Your task to perform on an android device: see sites visited before in the chrome app Image 0: 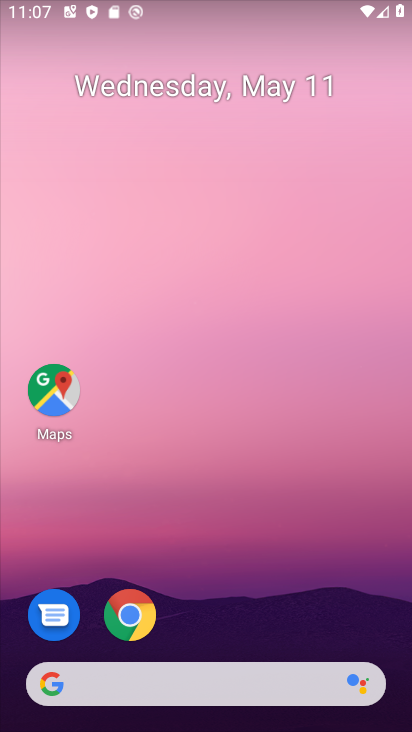
Step 0: click (127, 617)
Your task to perform on an android device: see sites visited before in the chrome app Image 1: 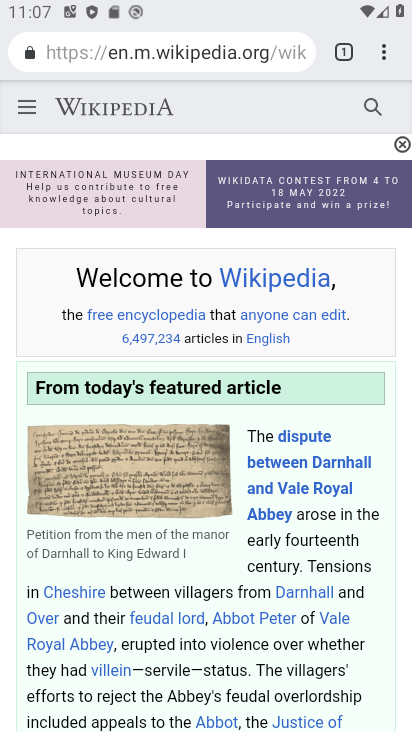
Step 1: click (381, 52)
Your task to perform on an android device: see sites visited before in the chrome app Image 2: 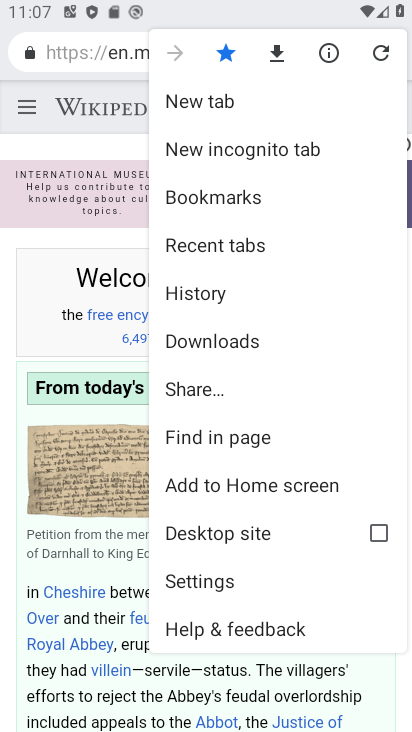
Step 2: drag from (275, 564) to (165, 164)
Your task to perform on an android device: see sites visited before in the chrome app Image 3: 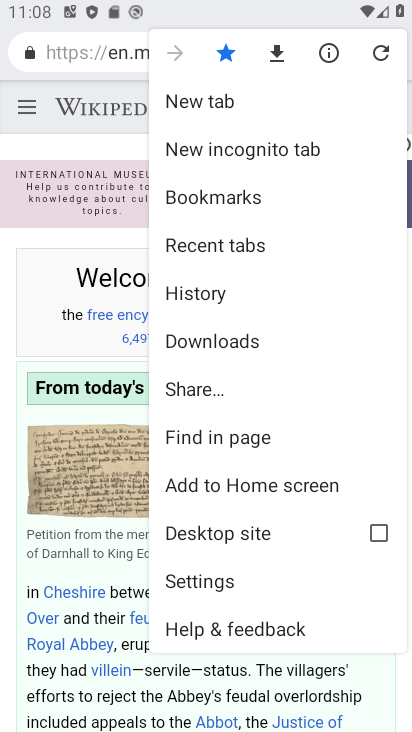
Step 3: click (208, 292)
Your task to perform on an android device: see sites visited before in the chrome app Image 4: 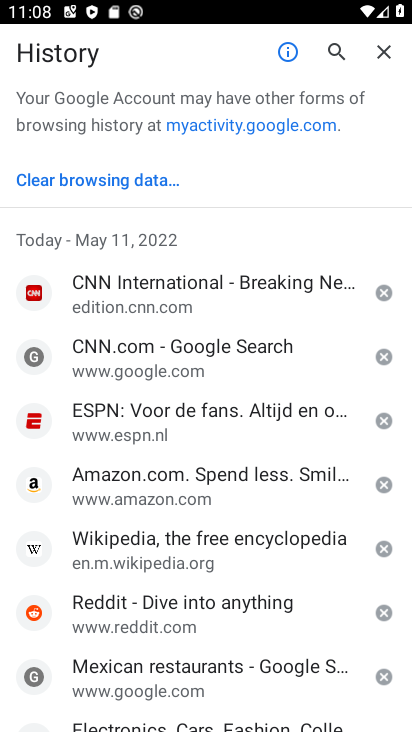
Step 4: task complete